Your task to perform on an android device: Open the calendar and show me this week's events? Image 0: 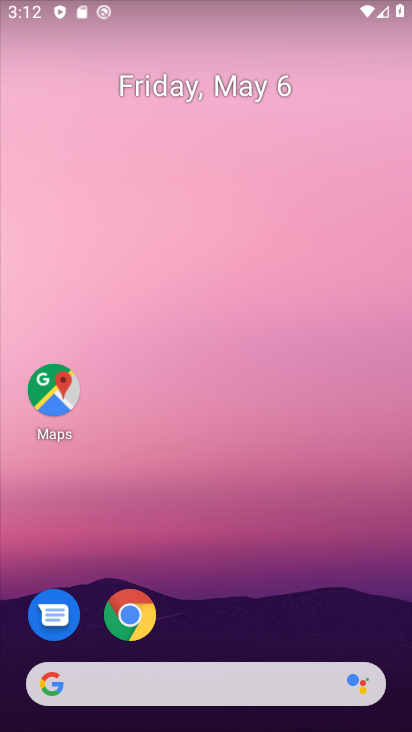
Step 0: drag from (334, 608) to (327, 104)
Your task to perform on an android device: Open the calendar and show me this week's events? Image 1: 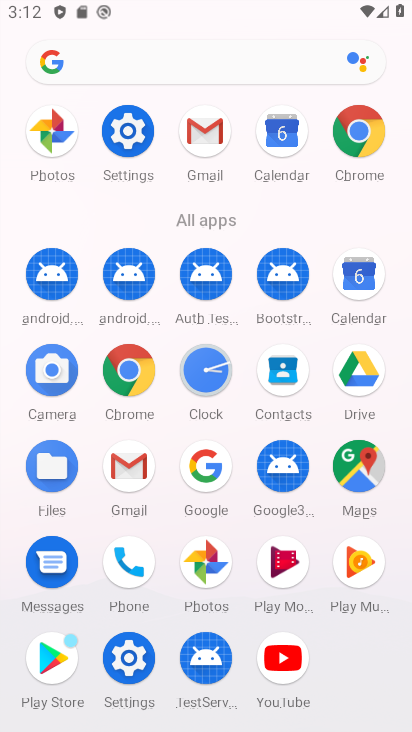
Step 1: click (352, 270)
Your task to perform on an android device: Open the calendar and show me this week's events? Image 2: 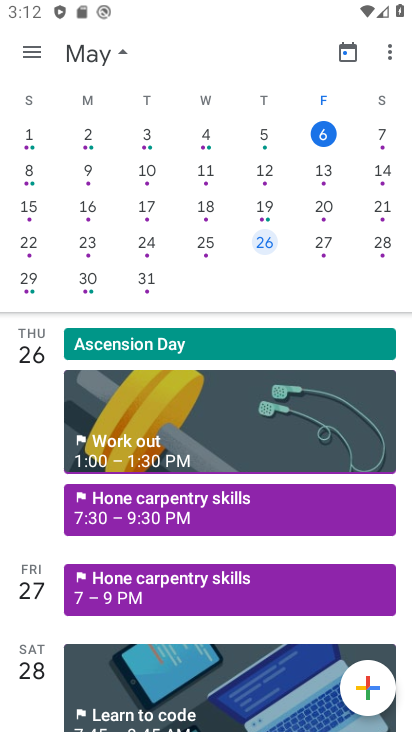
Step 2: click (29, 47)
Your task to perform on an android device: Open the calendar and show me this week's events? Image 3: 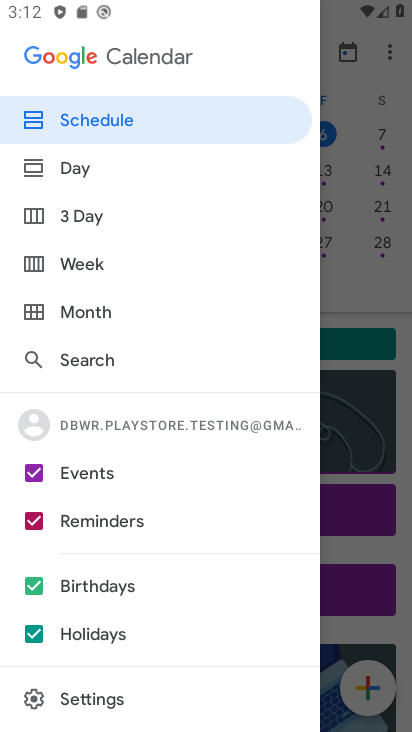
Step 3: click (108, 123)
Your task to perform on an android device: Open the calendar and show me this week's events? Image 4: 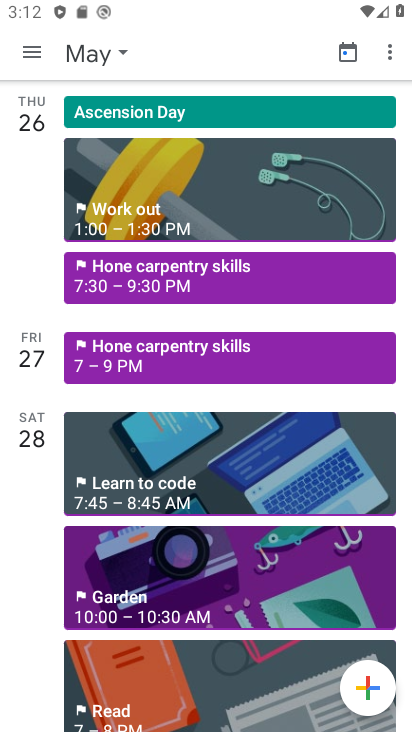
Step 4: drag from (318, 634) to (270, 354)
Your task to perform on an android device: Open the calendar and show me this week's events? Image 5: 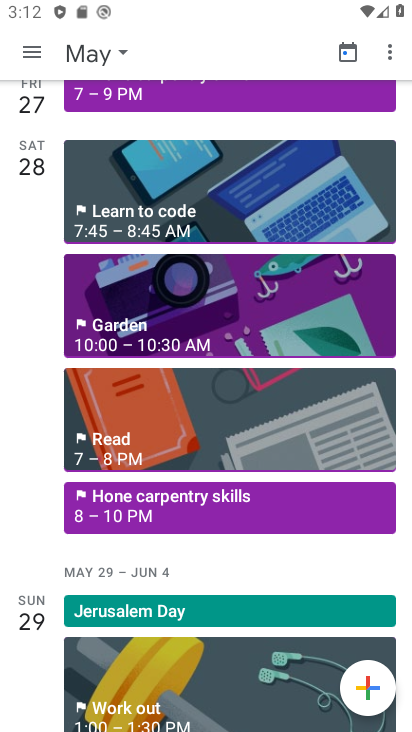
Step 5: click (90, 55)
Your task to perform on an android device: Open the calendar and show me this week's events? Image 6: 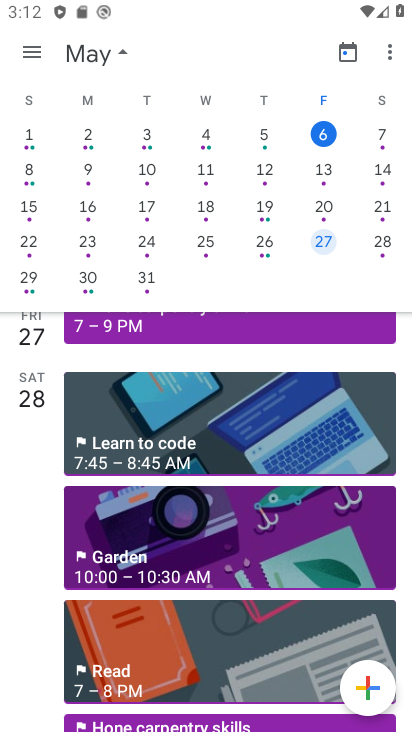
Step 6: click (326, 141)
Your task to perform on an android device: Open the calendar and show me this week's events? Image 7: 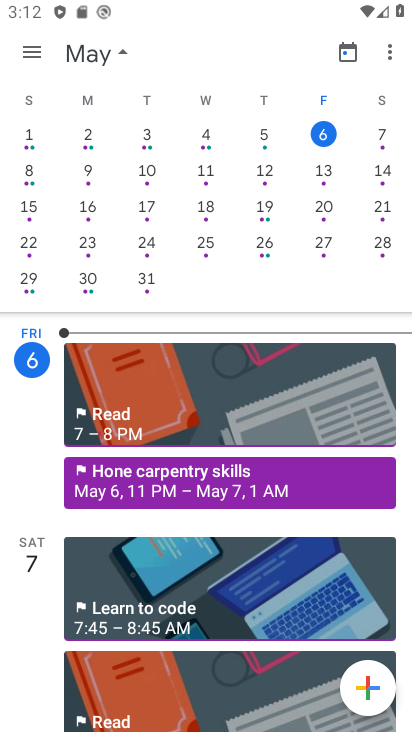
Step 7: task complete